Your task to perform on an android device: toggle sleep mode Image 0: 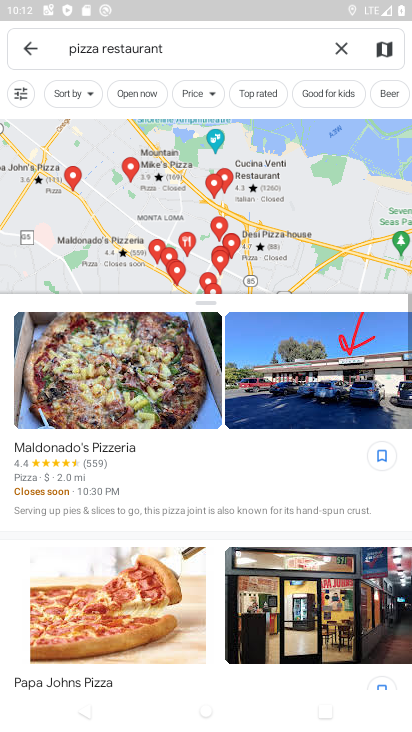
Step 0: press home button
Your task to perform on an android device: toggle sleep mode Image 1: 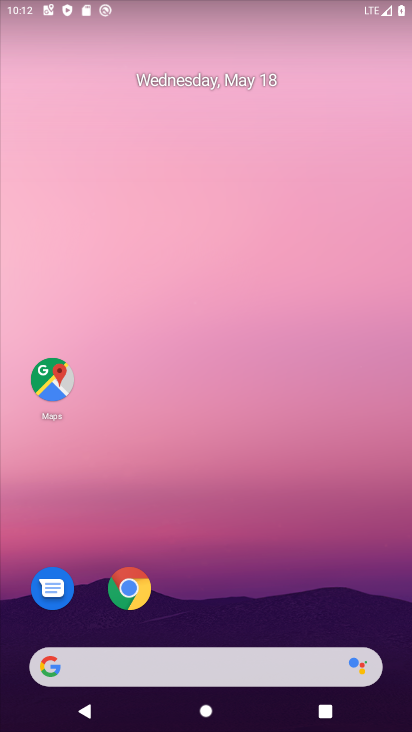
Step 1: drag from (278, 641) to (261, 19)
Your task to perform on an android device: toggle sleep mode Image 2: 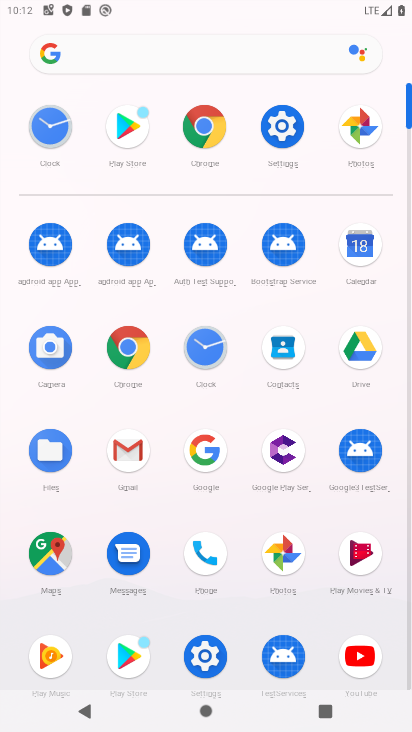
Step 2: click (288, 130)
Your task to perform on an android device: toggle sleep mode Image 3: 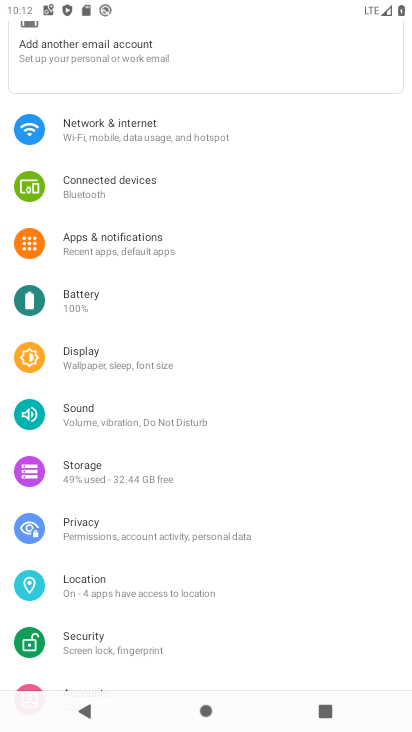
Step 3: click (117, 367)
Your task to perform on an android device: toggle sleep mode Image 4: 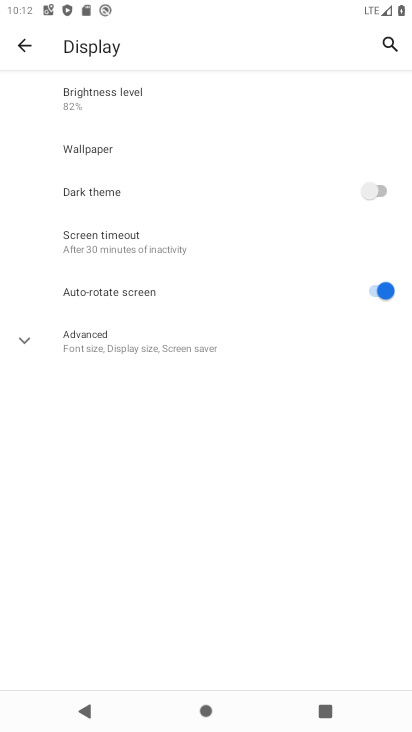
Step 4: click (23, 344)
Your task to perform on an android device: toggle sleep mode Image 5: 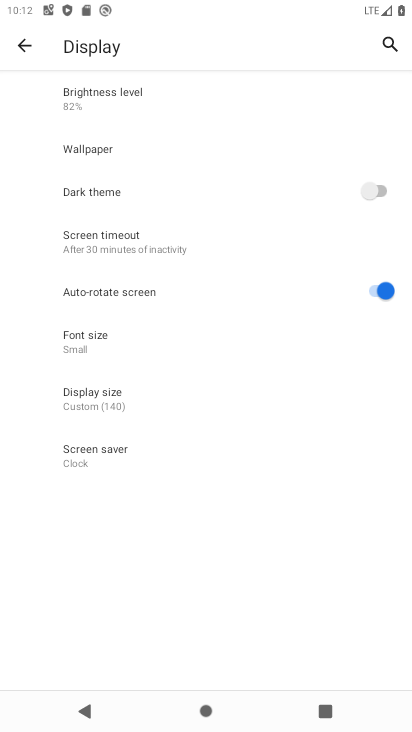
Step 5: task complete